Your task to perform on an android device: change the clock display to digital Image 0: 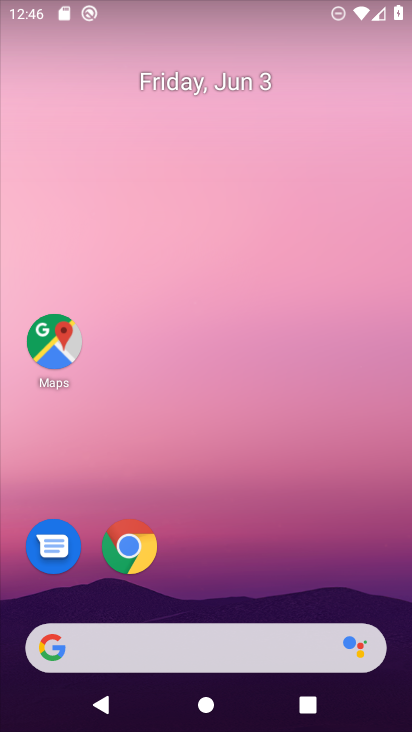
Step 0: drag from (258, 573) to (216, 318)
Your task to perform on an android device: change the clock display to digital Image 1: 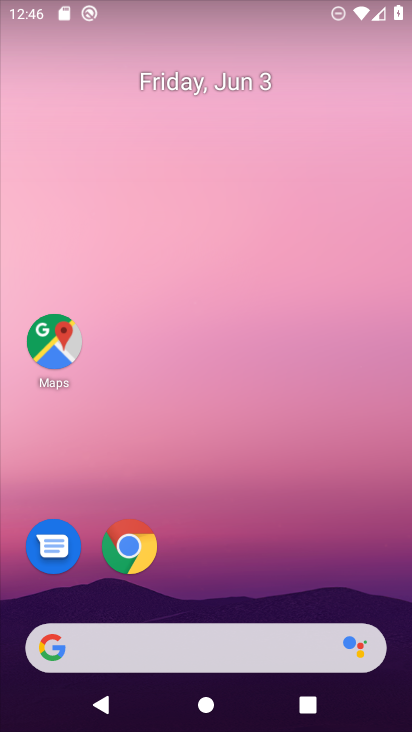
Step 1: drag from (251, 570) to (256, 38)
Your task to perform on an android device: change the clock display to digital Image 2: 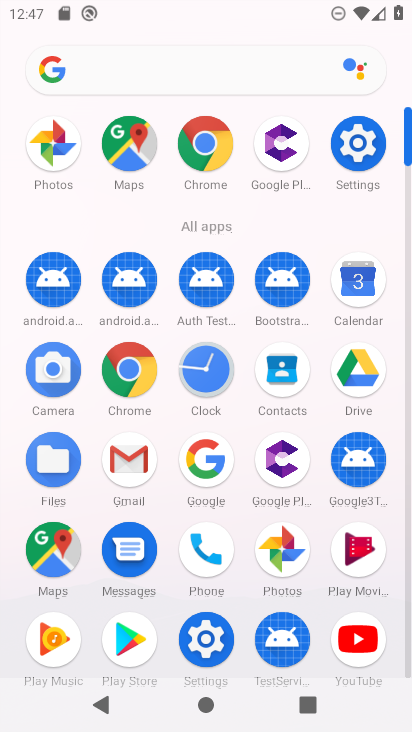
Step 2: click (207, 368)
Your task to perform on an android device: change the clock display to digital Image 3: 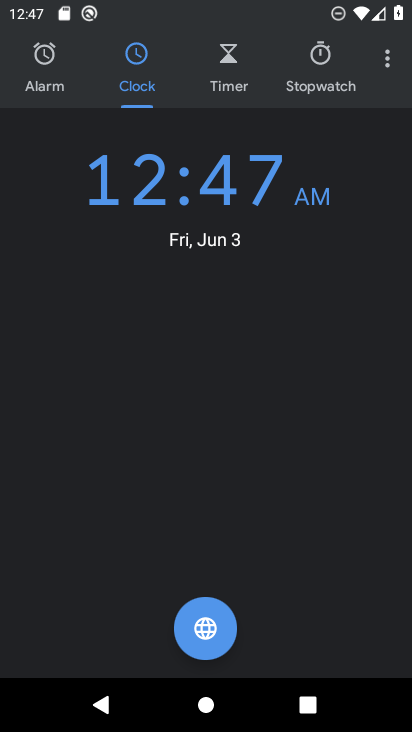
Step 3: click (388, 62)
Your task to perform on an android device: change the clock display to digital Image 4: 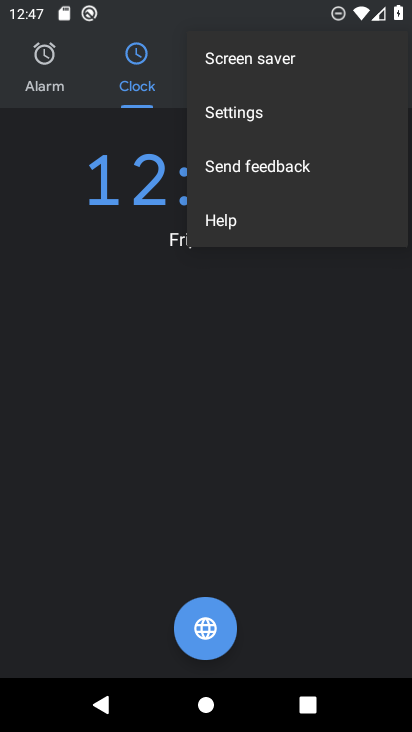
Step 4: click (247, 117)
Your task to perform on an android device: change the clock display to digital Image 5: 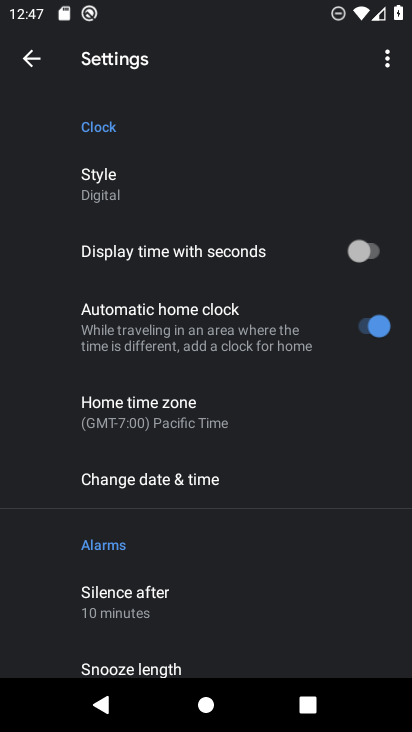
Step 5: click (142, 184)
Your task to perform on an android device: change the clock display to digital Image 6: 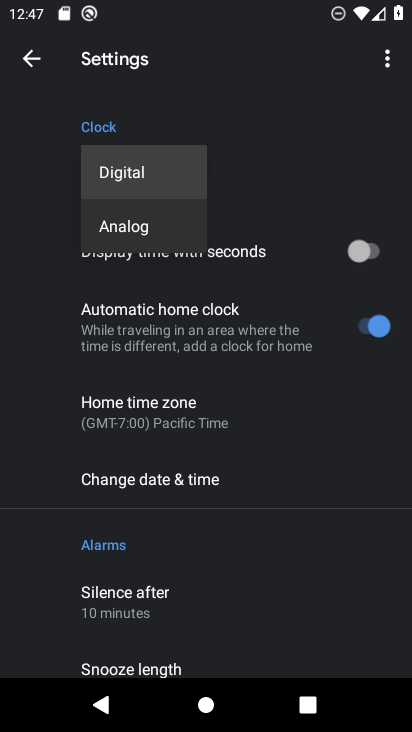
Step 6: click (142, 184)
Your task to perform on an android device: change the clock display to digital Image 7: 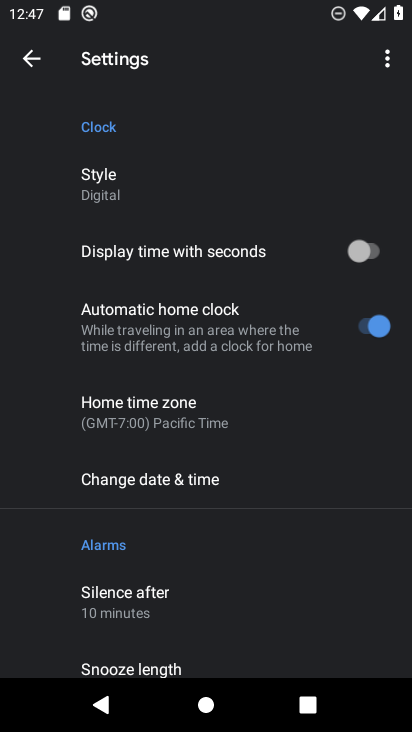
Step 7: task complete